Your task to perform on an android device: Open calendar and show me the first week of next month Image 0: 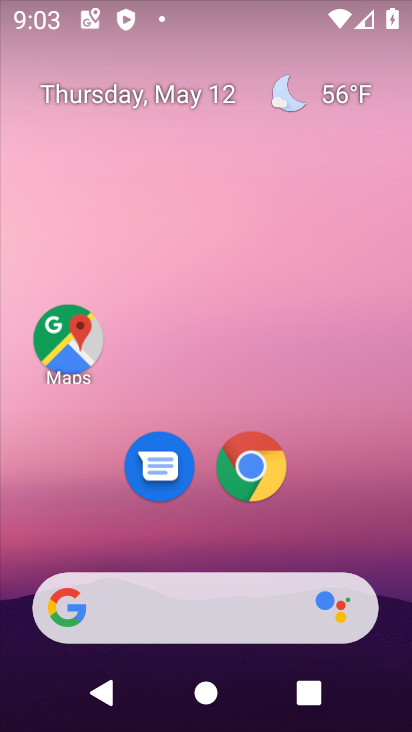
Step 0: drag from (354, 533) to (339, 140)
Your task to perform on an android device: Open calendar and show me the first week of next month Image 1: 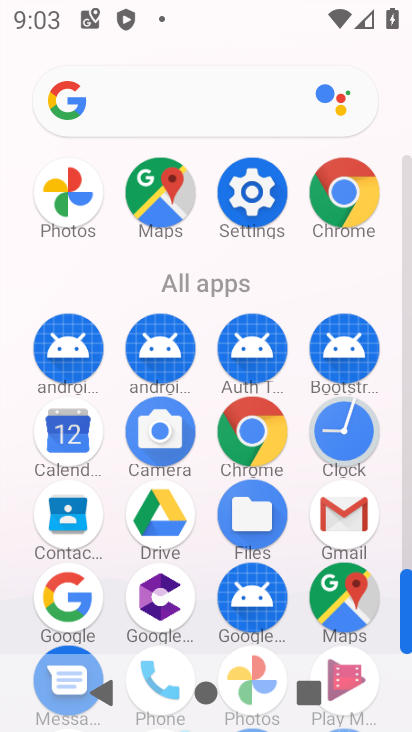
Step 1: click (52, 440)
Your task to perform on an android device: Open calendar and show me the first week of next month Image 2: 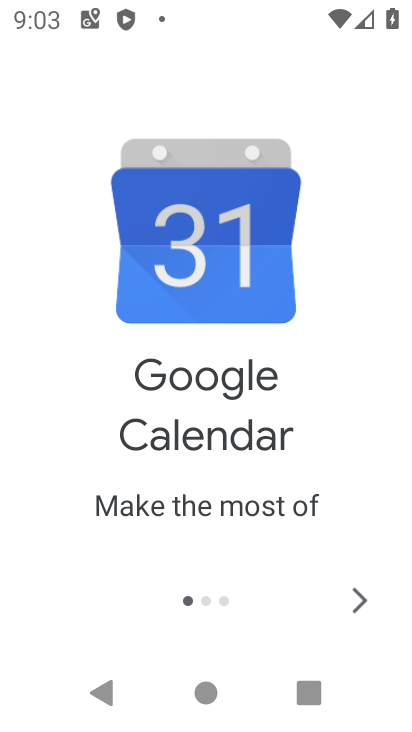
Step 2: click (359, 601)
Your task to perform on an android device: Open calendar and show me the first week of next month Image 3: 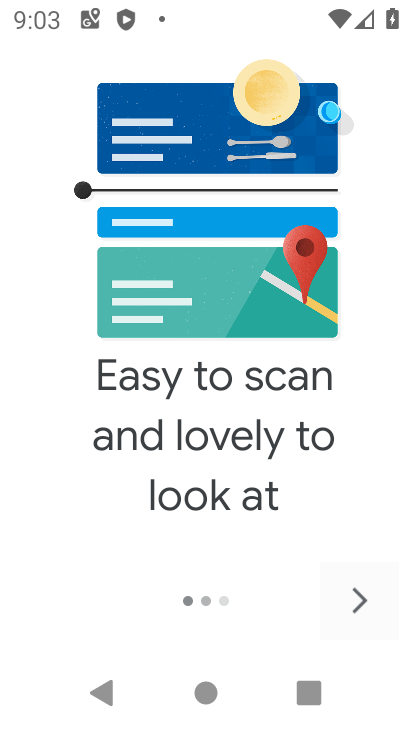
Step 3: click (359, 601)
Your task to perform on an android device: Open calendar and show me the first week of next month Image 4: 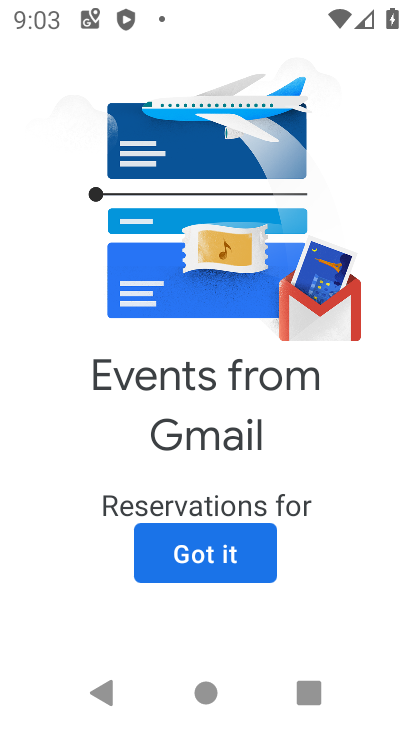
Step 4: click (200, 556)
Your task to perform on an android device: Open calendar and show me the first week of next month Image 5: 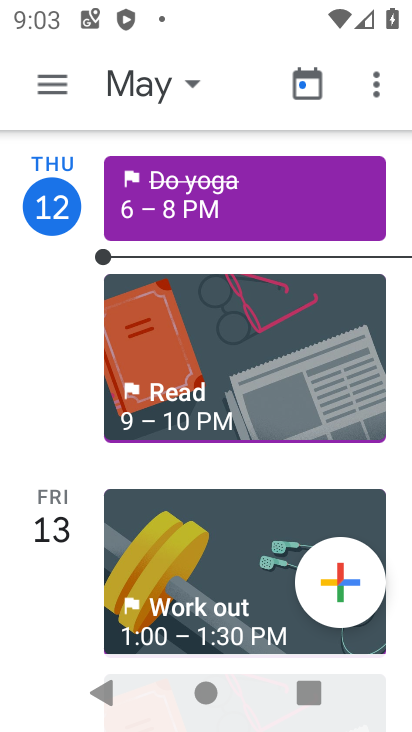
Step 5: click (168, 84)
Your task to perform on an android device: Open calendar and show me the first week of next month Image 6: 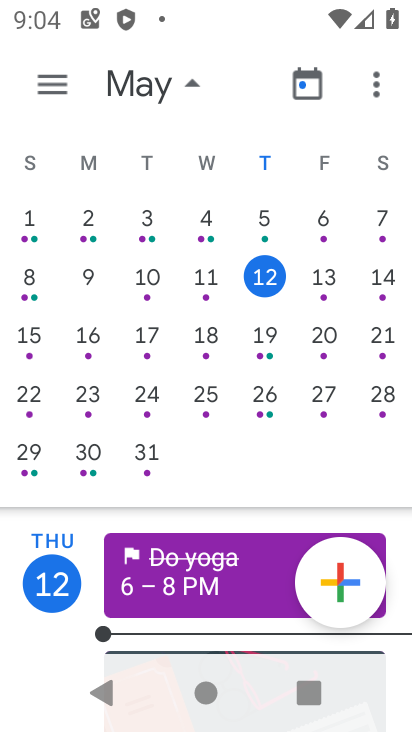
Step 6: drag from (351, 355) to (60, 351)
Your task to perform on an android device: Open calendar and show me the first week of next month Image 7: 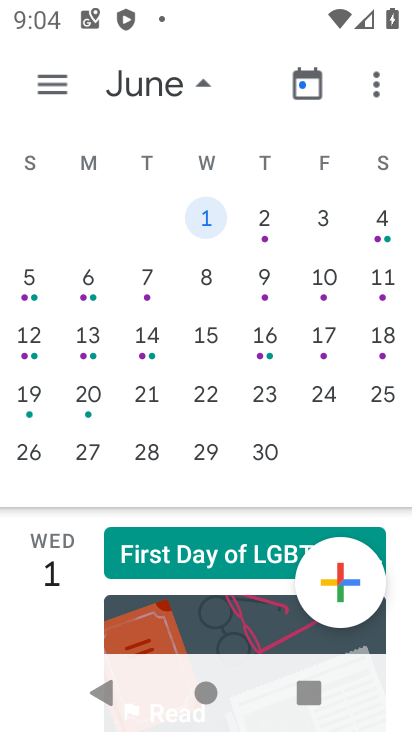
Step 7: click (256, 231)
Your task to perform on an android device: Open calendar and show me the first week of next month Image 8: 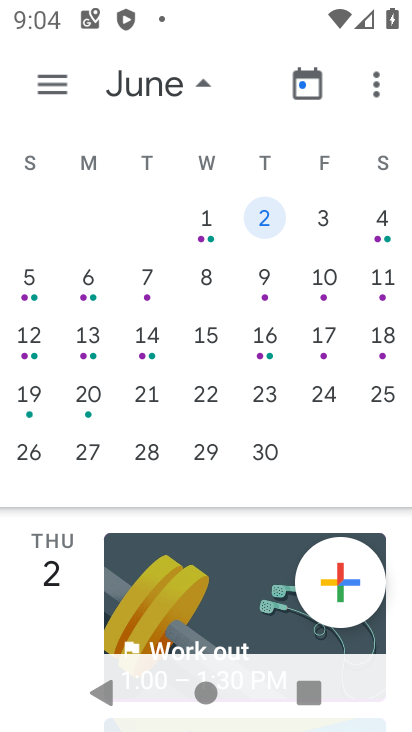
Step 8: click (316, 225)
Your task to perform on an android device: Open calendar and show me the first week of next month Image 9: 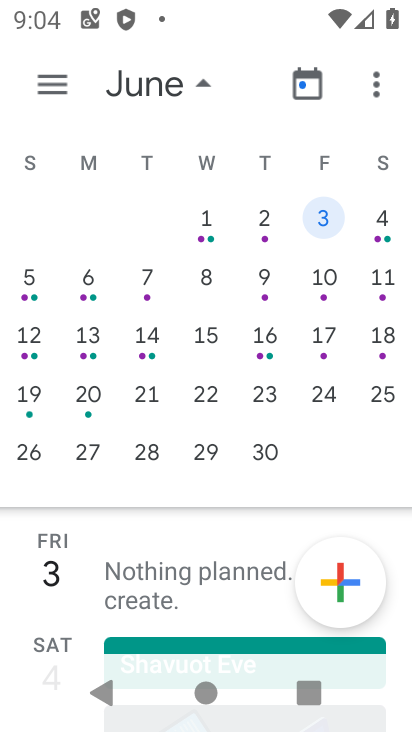
Step 9: click (382, 231)
Your task to perform on an android device: Open calendar and show me the first week of next month Image 10: 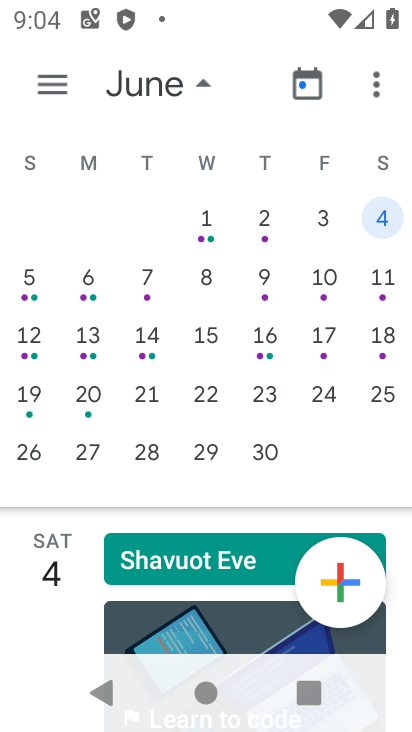
Step 10: task complete